Your task to perform on an android device: delete a single message in the gmail app Image 0: 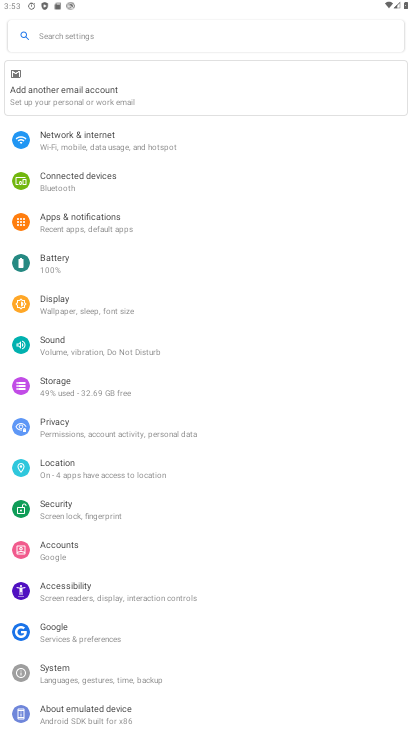
Step 0: press home button
Your task to perform on an android device: delete a single message in the gmail app Image 1: 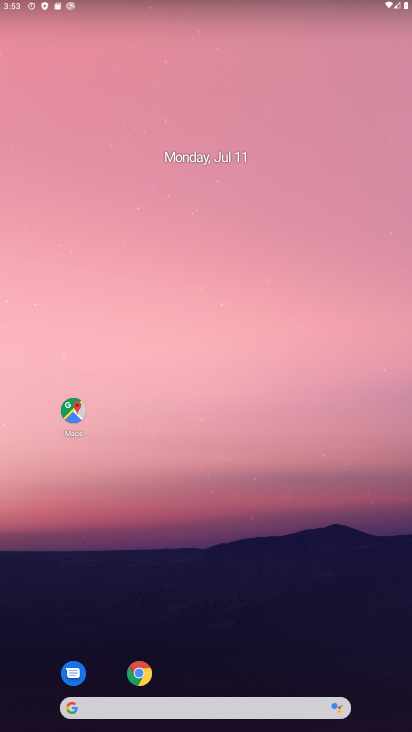
Step 1: drag from (273, 604) to (272, 42)
Your task to perform on an android device: delete a single message in the gmail app Image 2: 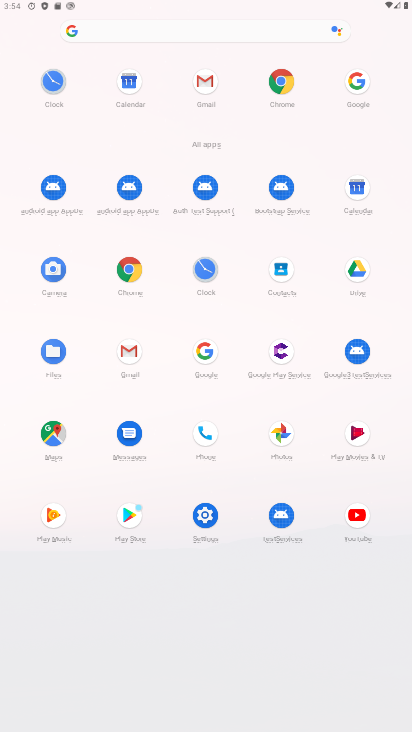
Step 2: click (129, 350)
Your task to perform on an android device: delete a single message in the gmail app Image 3: 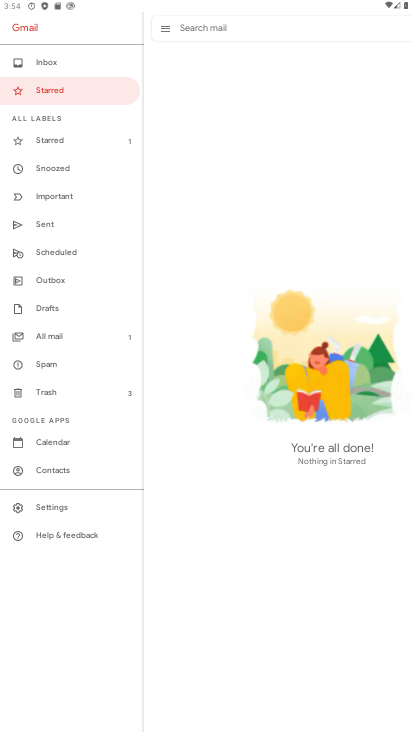
Step 3: task complete